Your task to perform on an android device: move a message to another label in the gmail app Image 0: 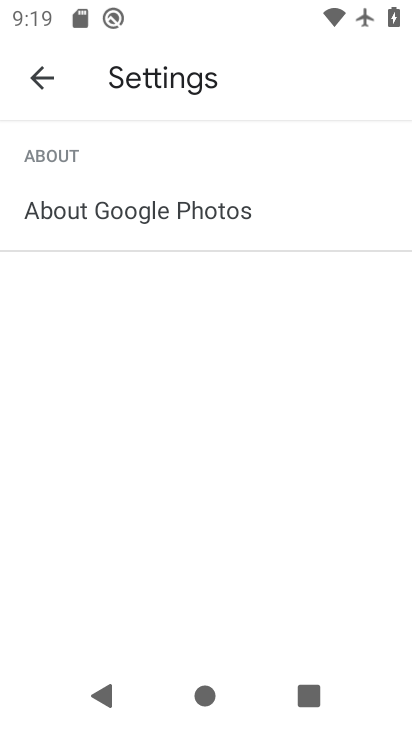
Step 0: press home button
Your task to perform on an android device: move a message to another label in the gmail app Image 1: 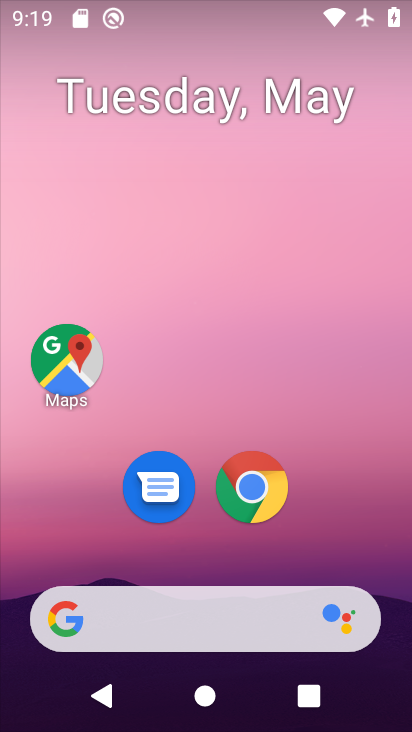
Step 1: drag from (201, 549) to (333, 76)
Your task to perform on an android device: move a message to another label in the gmail app Image 2: 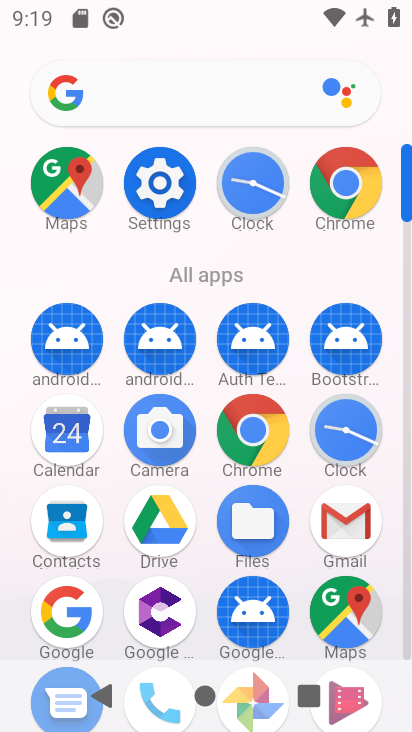
Step 2: click (352, 523)
Your task to perform on an android device: move a message to another label in the gmail app Image 3: 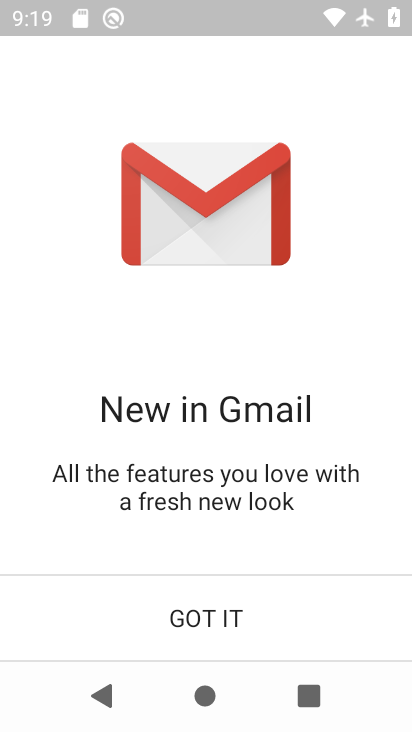
Step 3: click (252, 631)
Your task to perform on an android device: move a message to another label in the gmail app Image 4: 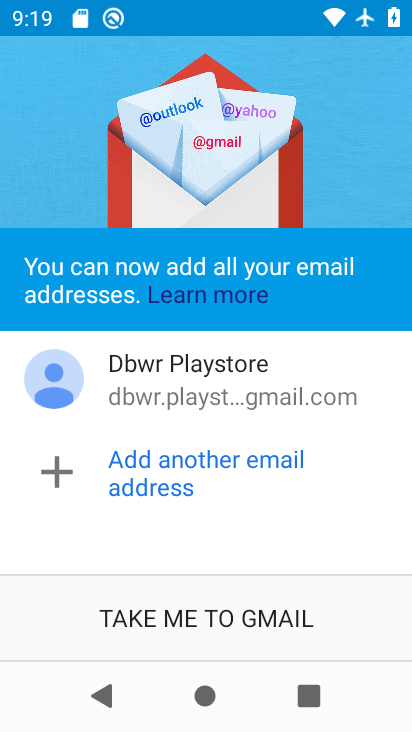
Step 4: click (252, 631)
Your task to perform on an android device: move a message to another label in the gmail app Image 5: 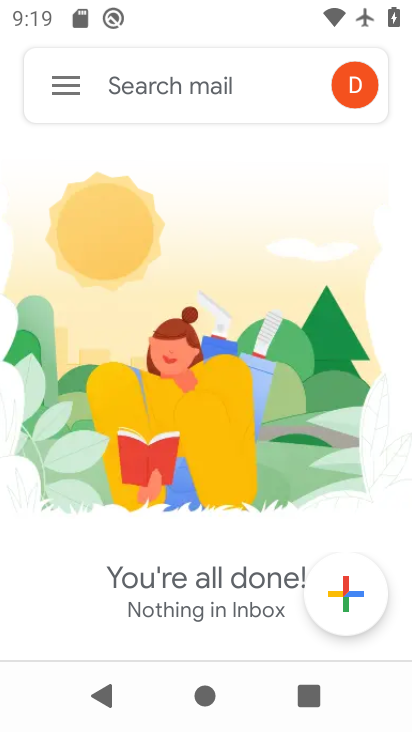
Step 5: task complete